Your task to perform on an android device: Turn on the flashlight Image 0: 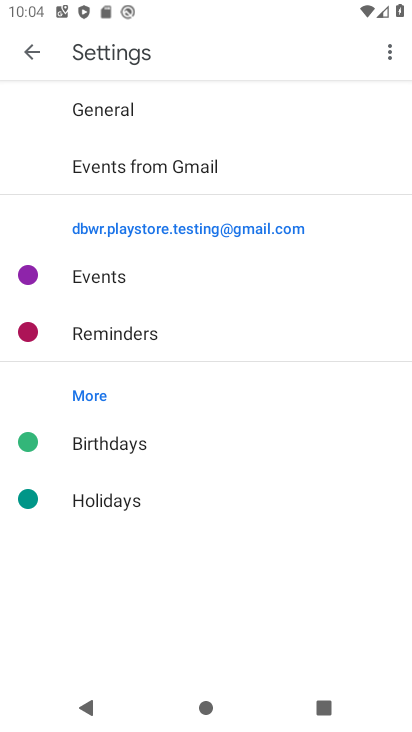
Step 0: drag from (311, 3) to (330, 509)
Your task to perform on an android device: Turn on the flashlight Image 1: 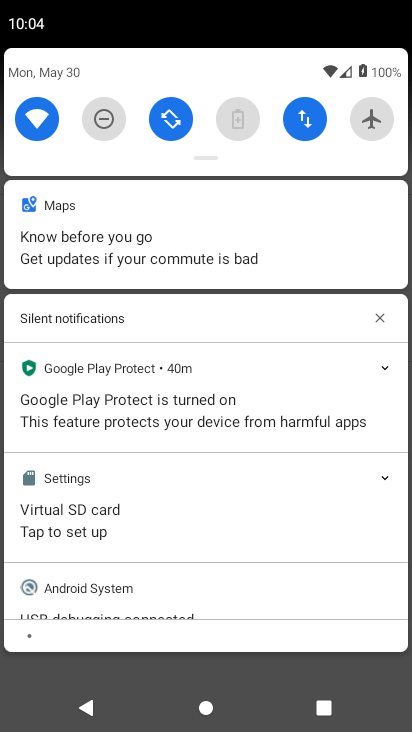
Step 1: task complete